Your task to perform on an android device: Open Yahoo.com Image 0: 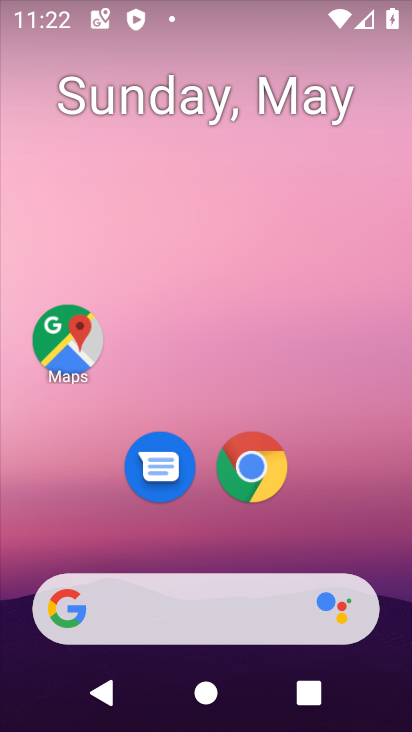
Step 0: click (253, 472)
Your task to perform on an android device: Open Yahoo.com Image 1: 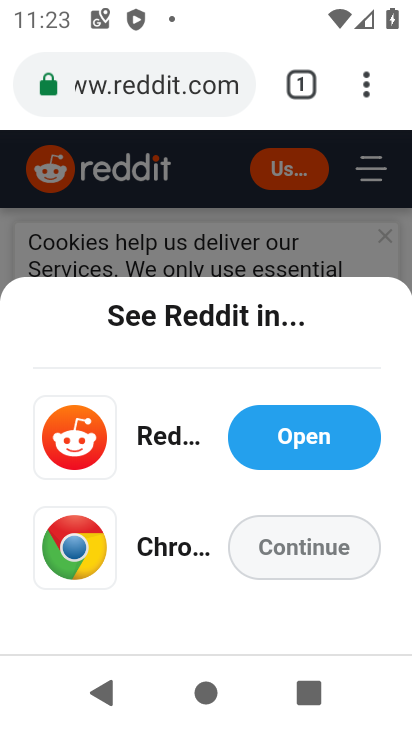
Step 1: click (120, 95)
Your task to perform on an android device: Open Yahoo.com Image 2: 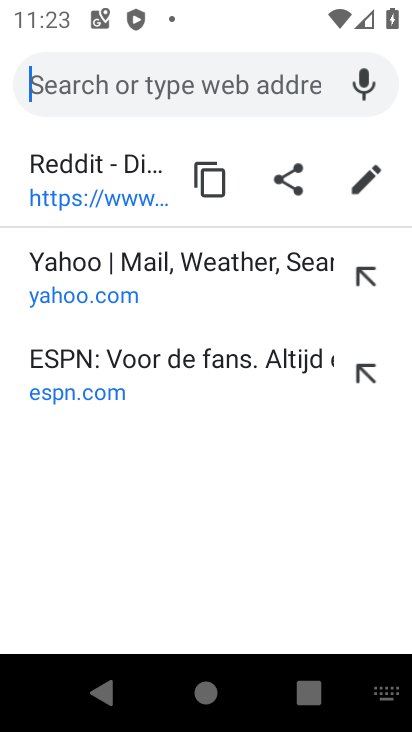
Step 2: click (76, 292)
Your task to perform on an android device: Open Yahoo.com Image 3: 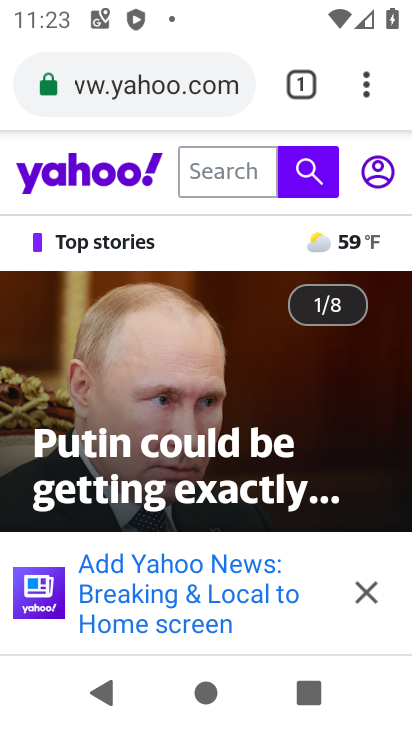
Step 3: task complete